Your task to perform on an android device: Show me popular videos on Youtube Image 0: 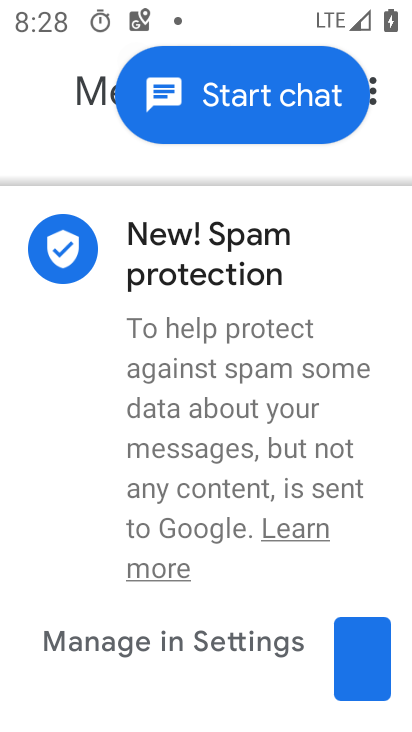
Step 0: press home button
Your task to perform on an android device: Show me popular videos on Youtube Image 1: 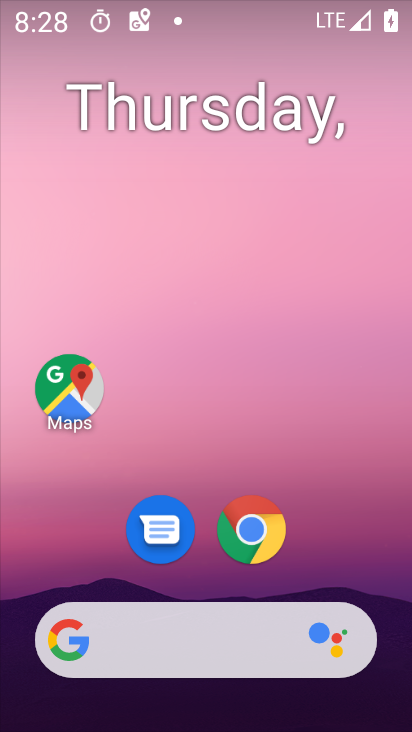
Step 1: drag from (381, 585) to (340, 126)
Your task to perform on an android device: Show me popular videos on Youtube Image 2: 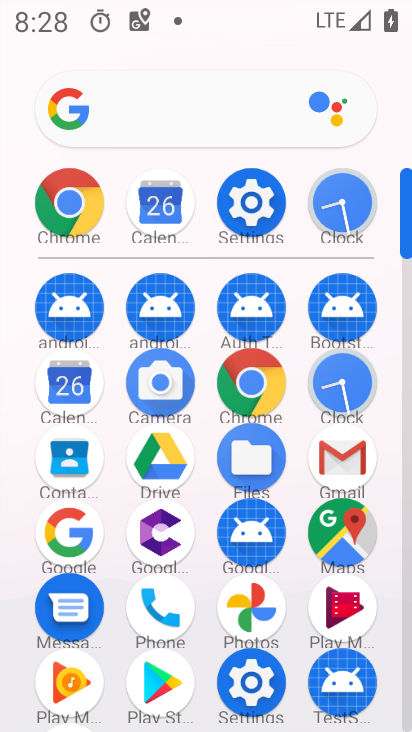
Step 2: drag from (384, 542) to (386, 275)
Your task to perform on an android device: Show me popular videos on Youtube Image 3: 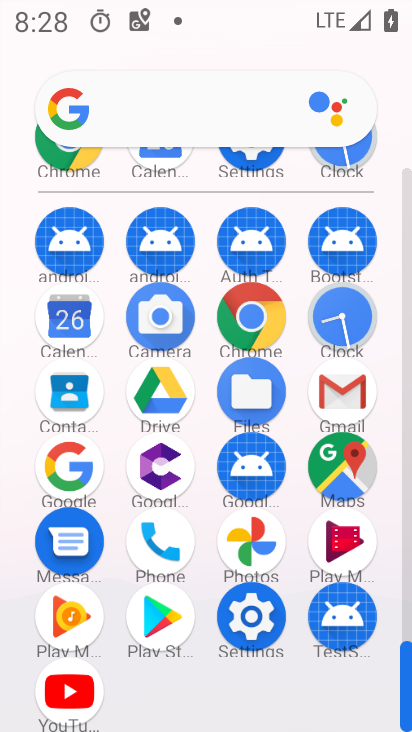
Step 3: click (83, 699)
Your task to perform on an android device: Show me popular videos on Youtube Image 4: 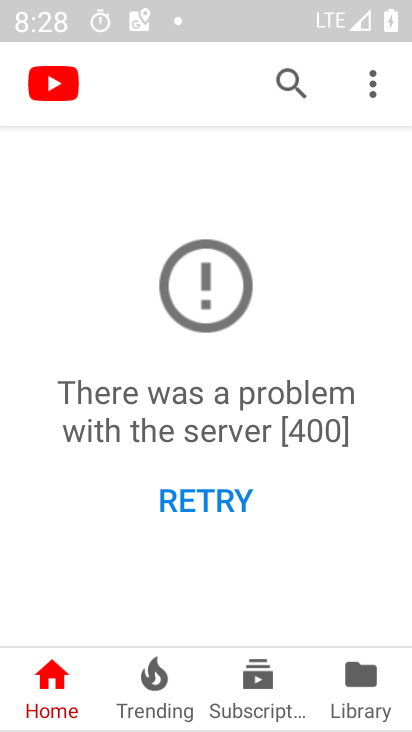
Step 4: task complete